Your task to perform on an android device: Open calendar and show me the fourth week of next month Image 0: 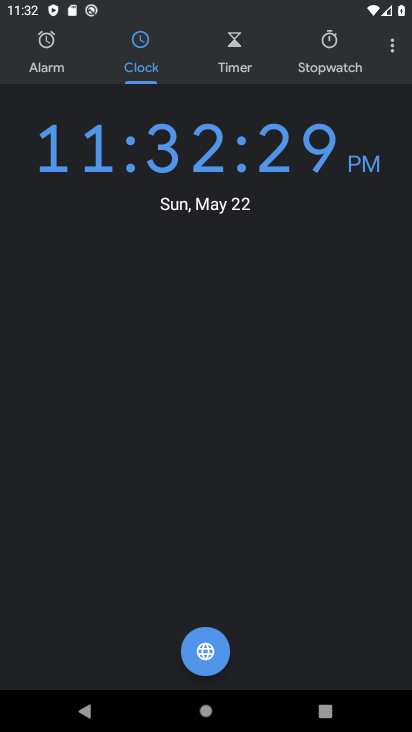
Step 0: press back button
Your task to perform on an android device: Open calendar and show me the fourth week of next month Image 1: 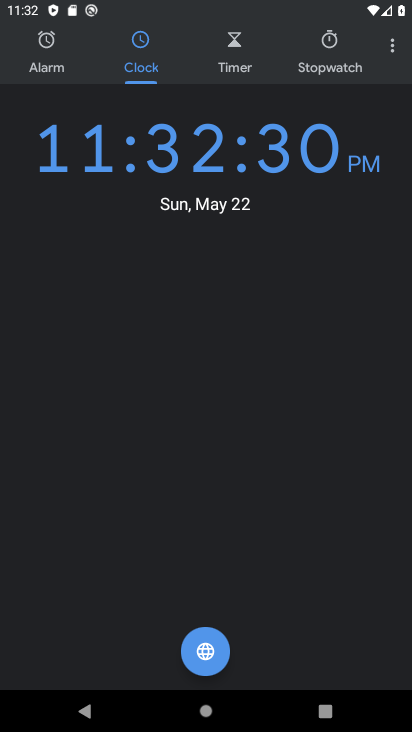
Step 1: press back button
Your task to perform on an android device: Open calendar and show me the fourth week of next month Image 2: 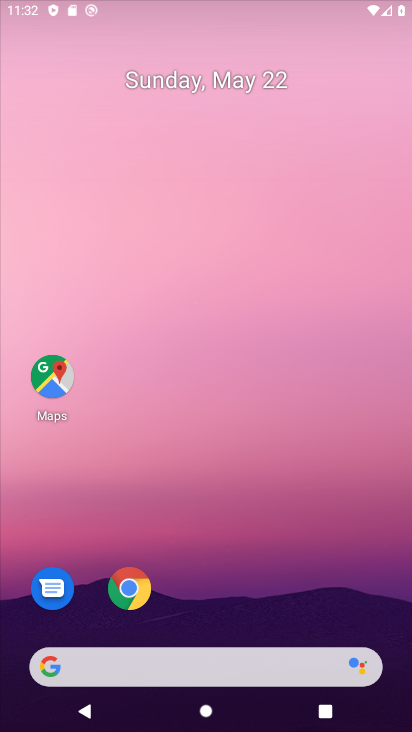
Step 2: press back button
Your task to perform on an android device: Open calendar and show me the fourth week of next month Image 3: 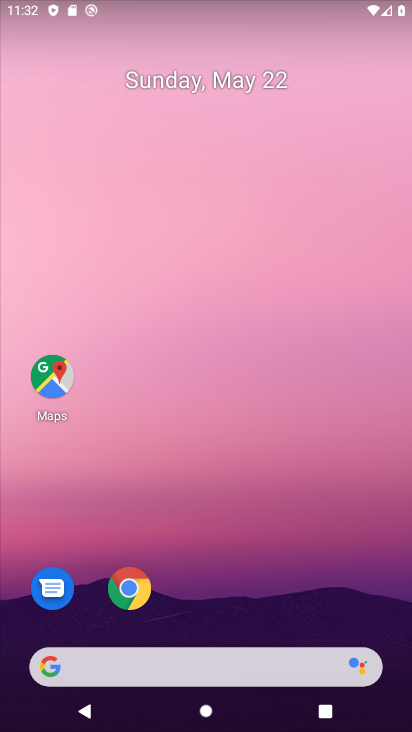
Step 3: drag from (158, 466) to (127, 241)
Your task to perform on an android device: Open calendar and show me the fourth week of next month Image 4: 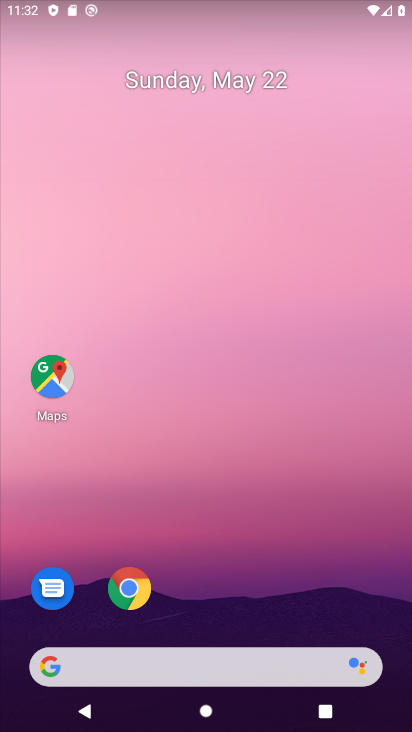
Step 4: drag from (266, 676) to (292, 62)
Your task to perform on an android device: Open calendar and show me the fourth week of next month Image 5: 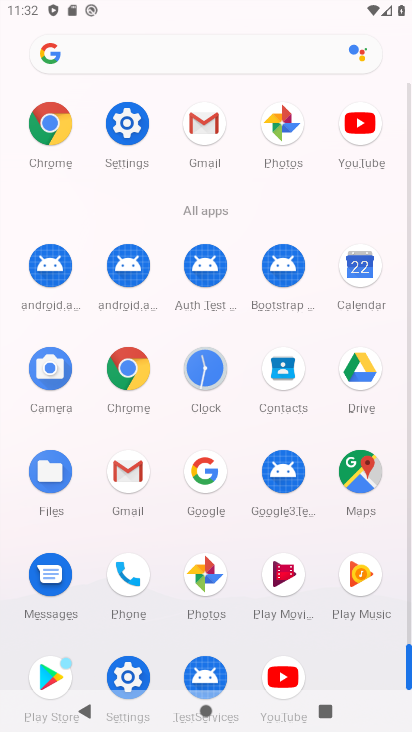
Step 5: click (368, 263)
Your task to perform on an android device: Open calendar and show me the fourth week of next month Image 6: 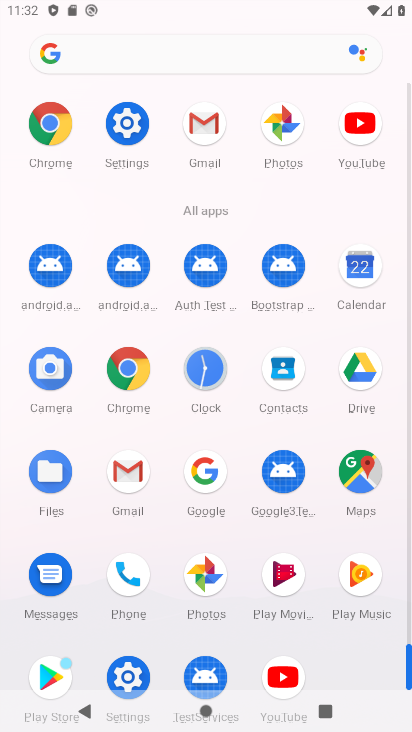
Step 6: click (365, 262)
Your task to perform on an android device: Open calendar and show me the fourth week of next month Image 7: 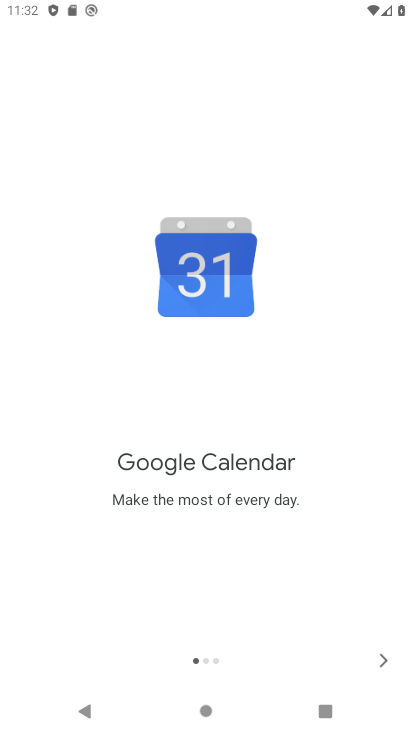
Step 7: click (387, 655)
Your task to perform on an android device: Open calendar and show me the fourth week of next month Image 8: 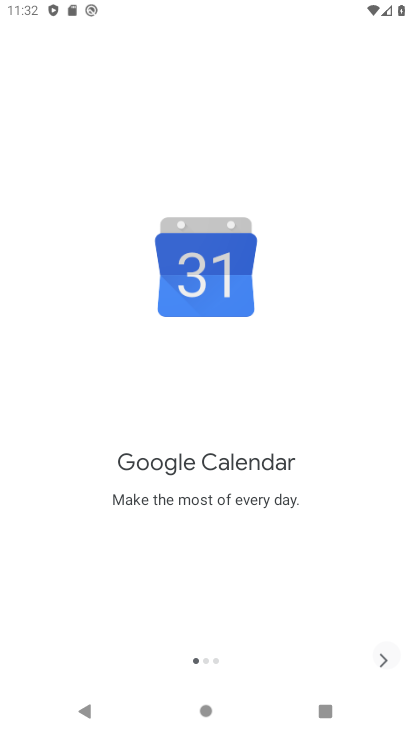
Step 8: click (387, 655)
Your task to perform on an android device: Open calendar and show me the fourth week of next month Image 9: 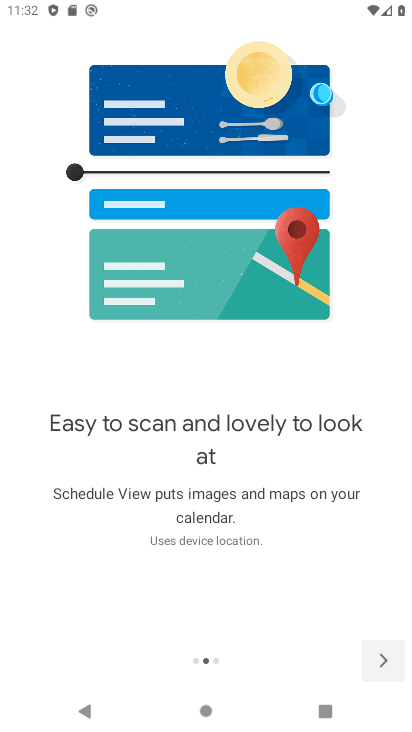
Step 9: click (387, 655)
Your task to perform on an android device: Open calendar and show me the fourth week of next month Image 10: 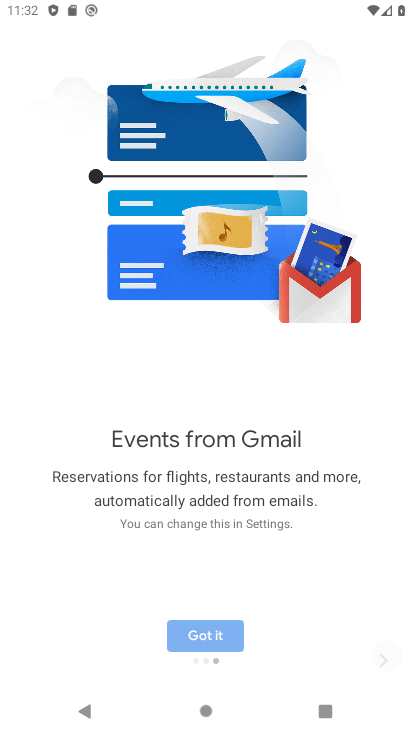
Step 10: click (387, 655)
Your task to perform on an android device: Open calendar and show me the fourth week of next month Image 11: 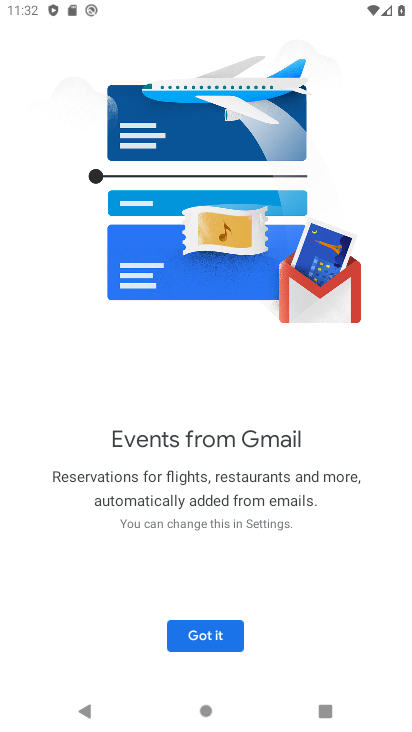
Step 11: click (184, 638)
Your task to perform on an android device: Open calendar and show me the fourth week of next month Image 12: 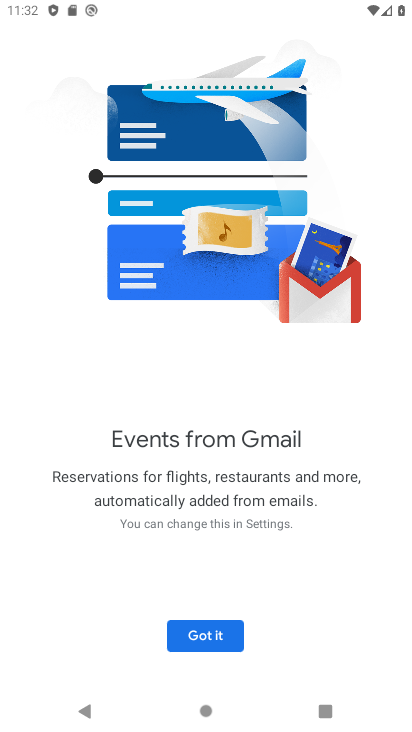
Step 12: click (186, 638)
Your task to perform on an android device: Open calendar and show me the fourth week of next month Image 13: 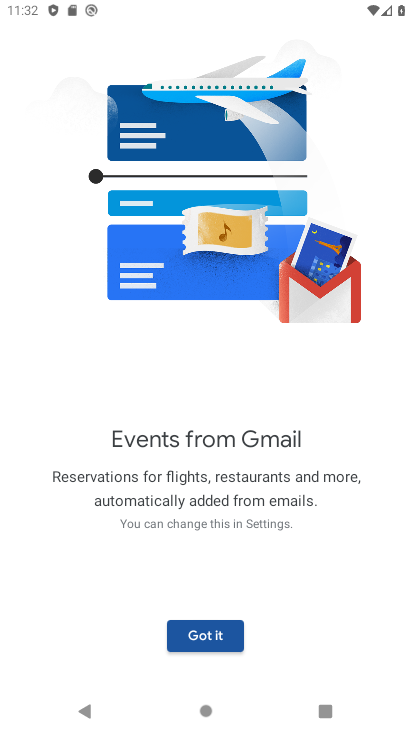
Step 13: click (186, 638)
Your task to perform on an android device: Open calendar and show me the fourth week of next month Image 14: 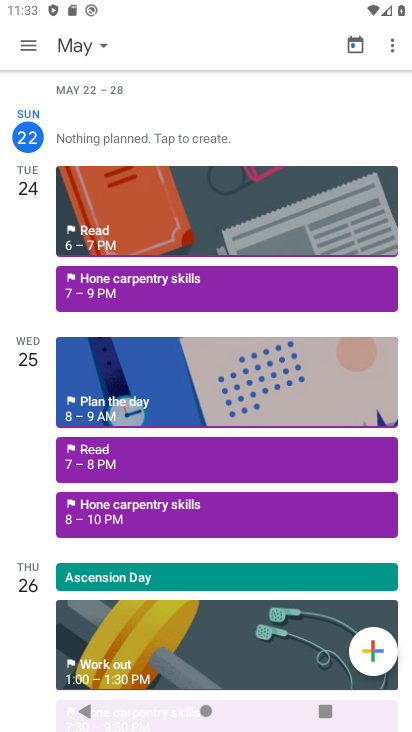
Step 14: click (98, 44)
Your task to perform on an android device: Open calendar and show me the fourth week of next month Image 15: 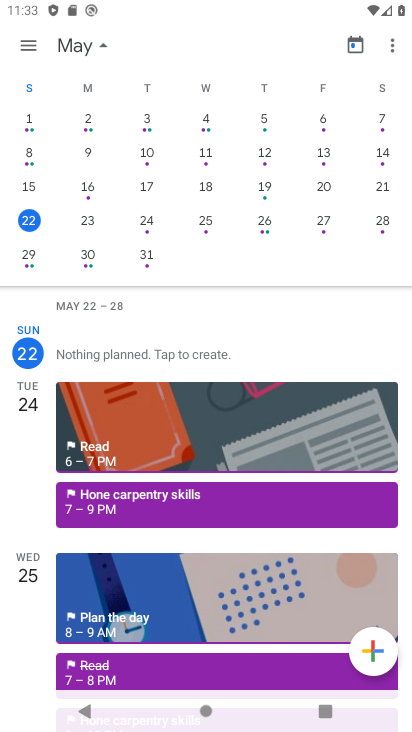
Step 15: drag from (241, 170) to (1, 208)
Your task to perform on an android device: Open calendar and show me the fourth week of next month Image 16: 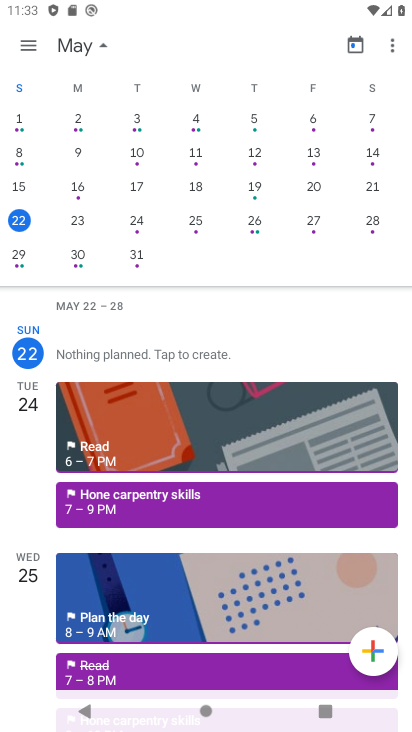
Step 16: drag from (228, 206) to (37, 183)
Your task to perform on an android device: Open calendar and show me the fourth week of next month Image 17: 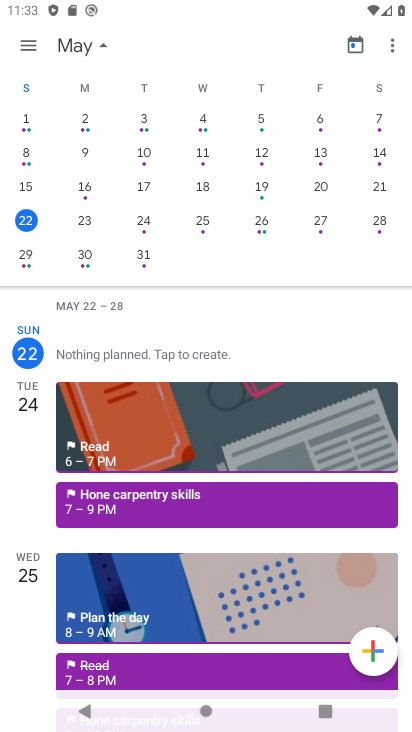
Step 17: drag from (238, 186) to (38, 252)
Your task to perform on an android device: Open calendar and show me the fourth week of next month Image 18: 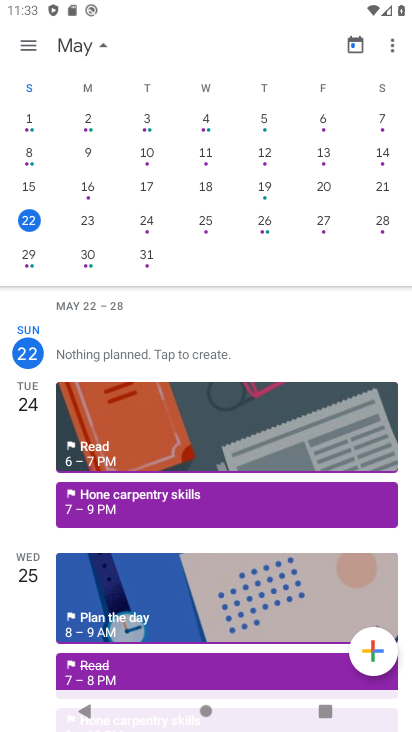
Step 18: drag from (297, 194) to (53, 206)
Your task to perform on an android device: Open calendar and show me the fourth week of next month Image 19: 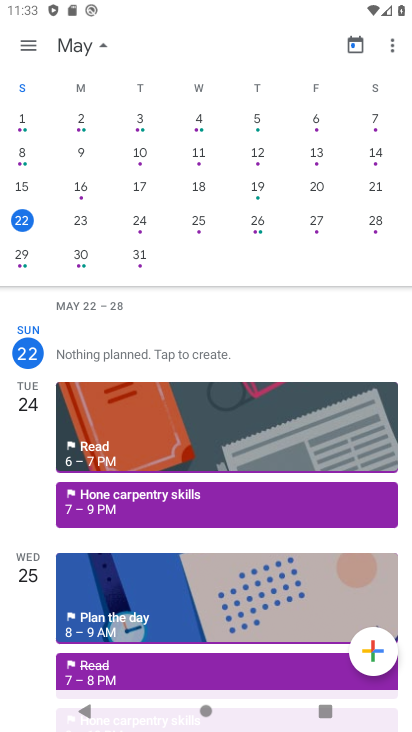
Step 19: drag from (238, 193) to (53, 161)
Your task to perform on an android device: Open calendar and show me the fourth week of next month Image 20: 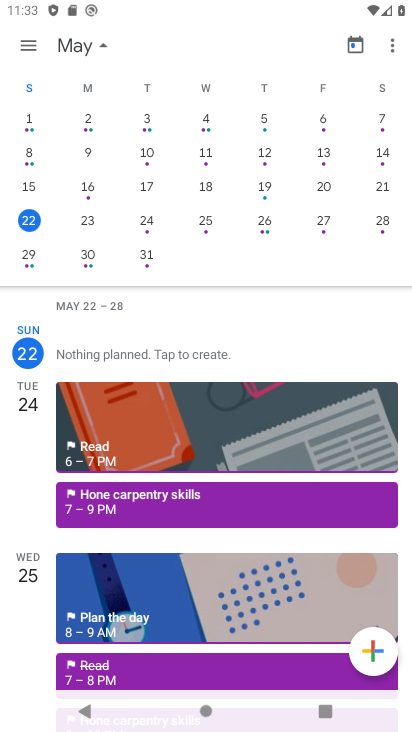
Step 20: drag from (164, 161) to (41, 238)
Your task to perform on an android device: Open calendar and show me the fourth week of next month Image 21: 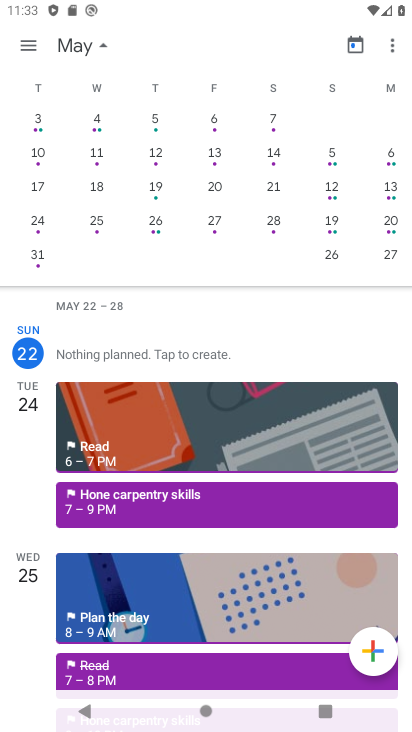
Step 21: drag from (283, 218) to (76, 147)
Your task to perform on an android device: Open calendar and show me the fourth week of next month Image 22: 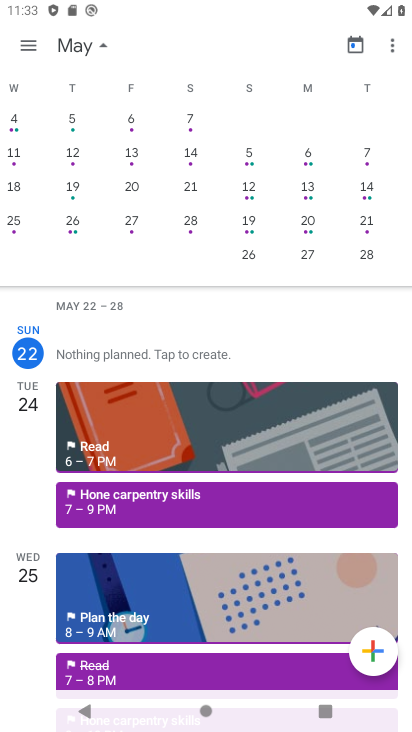
Step 22: drag from (280, 133) to (38, 194)
Your task to perform on an android device: Open calendar and show me the fourth week of next month Image 23: 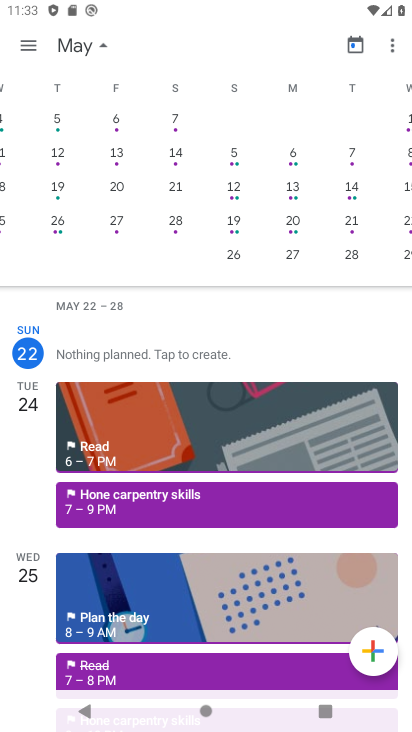
Step 23: drag from (403, 187) to (27, 206)
Your task to perform on an android device: Open calendar and show me the fourth week of next month Image 24: 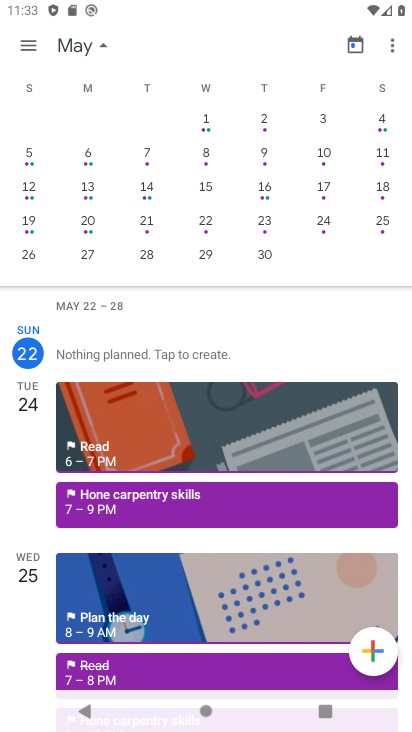
Step 24: drag from (103, 194) to (55, 195)
Your task to perform on an android device: Open calendar and show me the fourth week of next month Image 25: 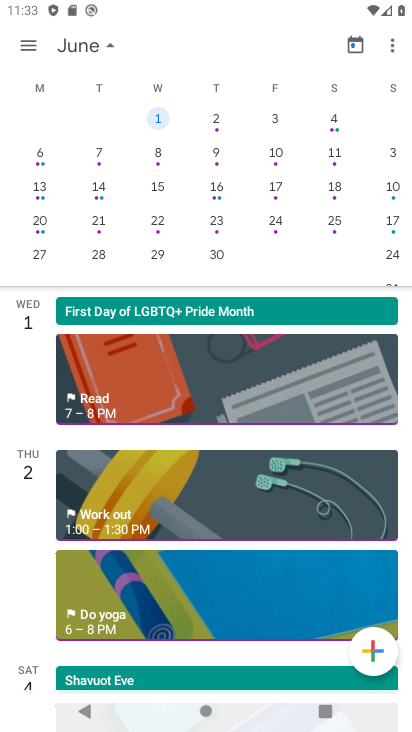
Step 25: drag from (200, 180) to (4, 218)
Your task to perform on an android device: Open calendar and show me the fourth week of next month Image 26: 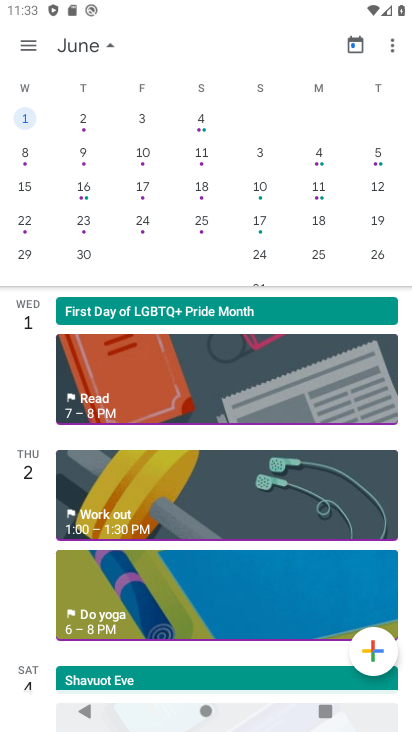
Step 26: drag from (21, 247) to (4, 215)
Your task to perform on an android device: Open calendar and show me the fourth week of next month Image 27: 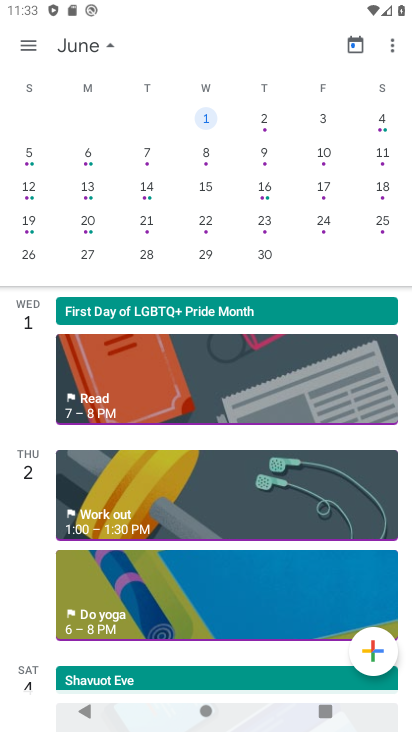
Step 27: click (199, 216)
Your task to perform on an android device: Open calendar and show me the fourth week of next month Image 28: 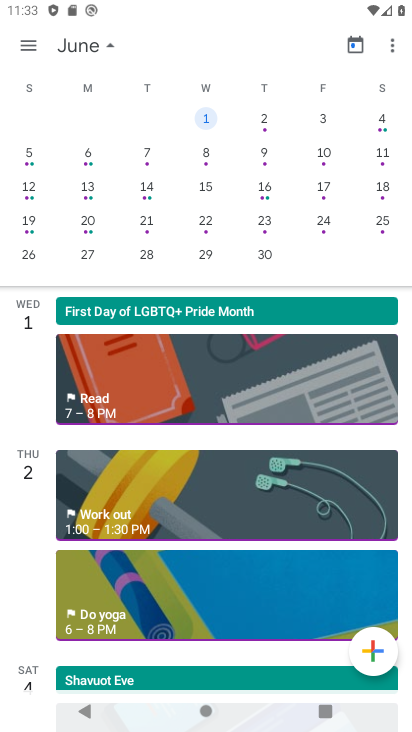
Step 28: click (203, 216)
Your task to perform on an android device: Open calendar and show me the fourth week of next month Image 29: 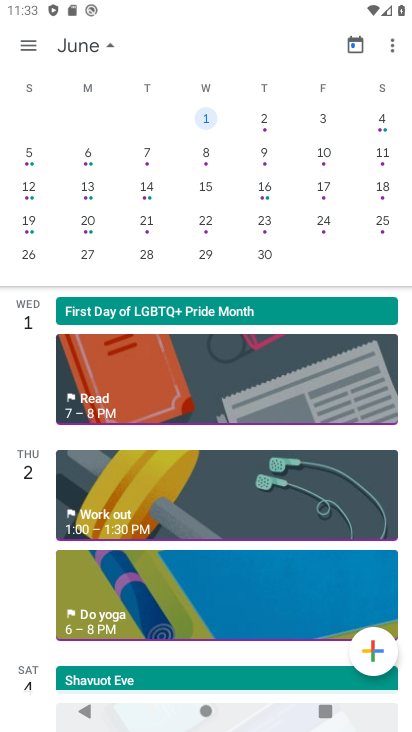
Step 29: click (204, 216)
Your task to perform on an android device: Open calendar and show me the fourth week of next month Image 30: 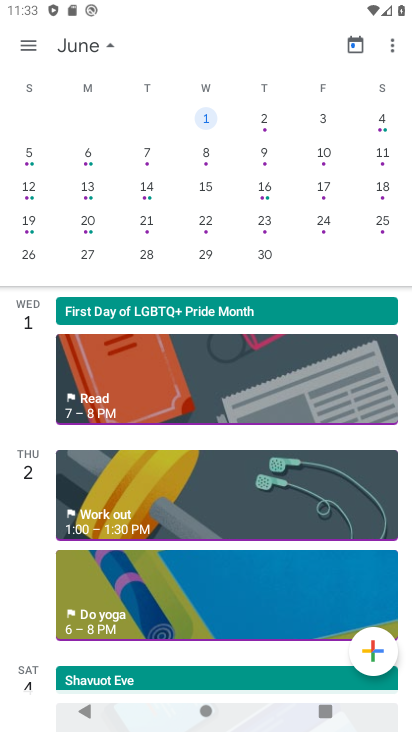
Step 30: click (206, 218)
Your task to perform on an android device: Open calendar and show me the fourth week of next month Image 31: 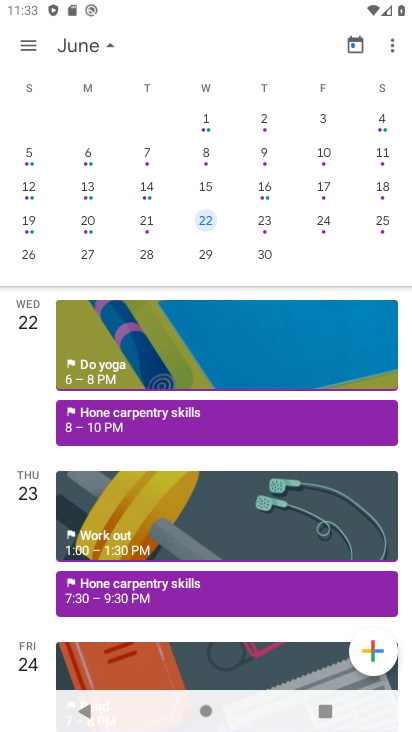
Step 31: task complete